Your task to perform on an android device: toggle improve location accuracy Image 0: 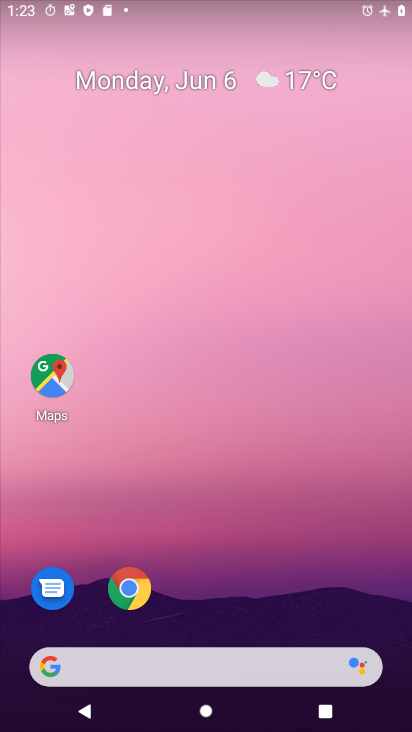
Step 0: drag from (299, 506) to (260, 14)
Your task to perform on an android device: toggle improve location accuracy Image 1: 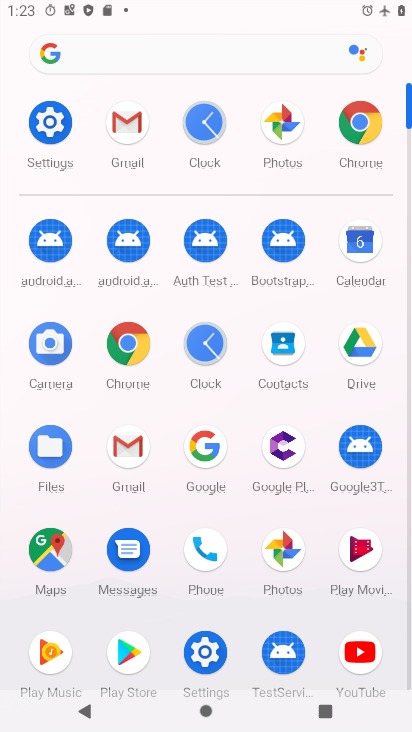
Step 1: click (55, 130)
Your task to perform on an android device: toggle improve location accuracy Image 2: 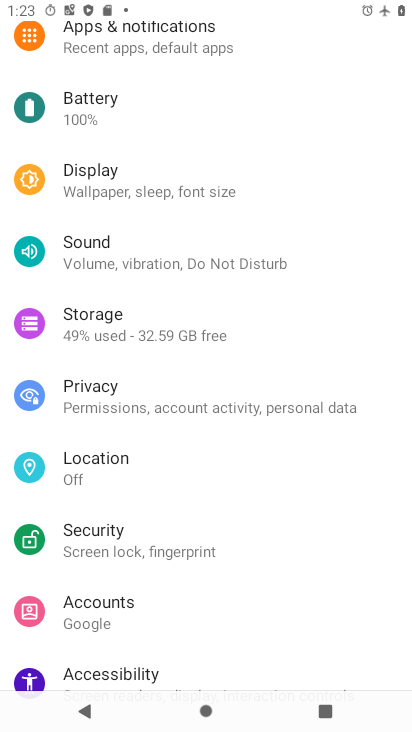
Step 2: click (140, 464)
Your task to perform on an android device: toggle improve location accuracy Image 3: 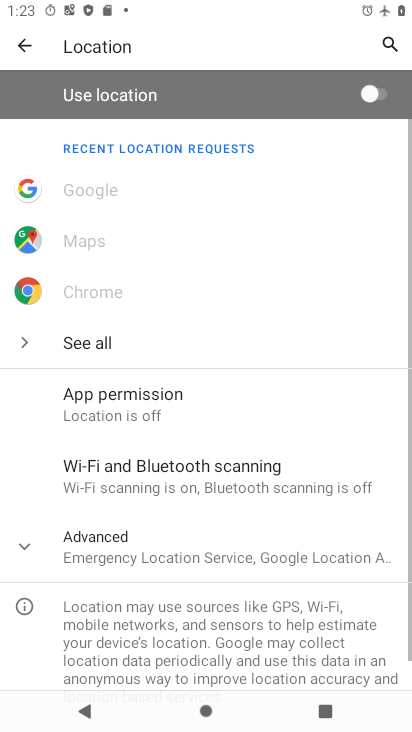
Step 3: drag from (198, 479) to (207, 90)
Your task to perform on an android device: toggle improve location accuracy Image 4: 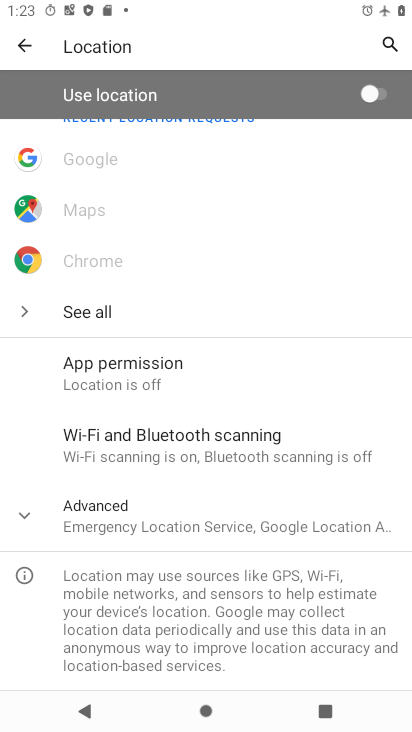
Step 4: click (164, 500)
Your task to perform on an android device: toggle improve location accuracy Image 5: 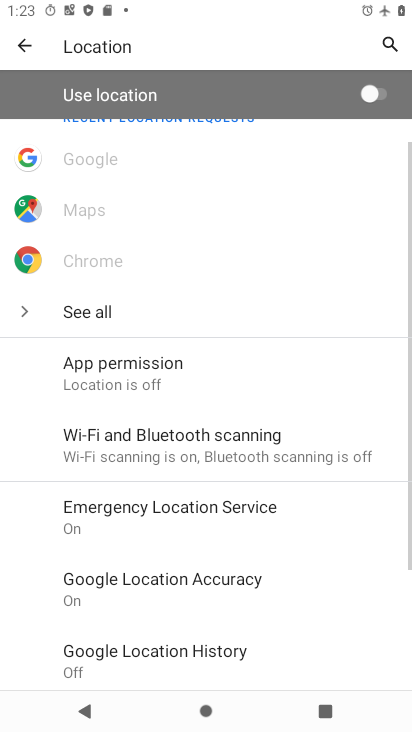
Step 5: click (226, 584)
Your task to perform on an android device: toggle improve location accuracy Image 6: 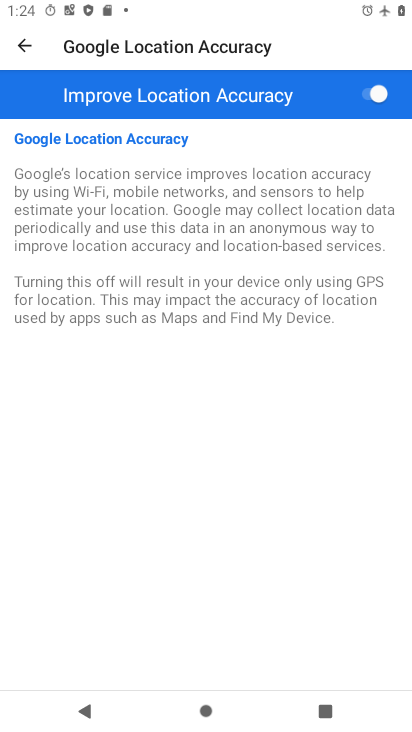
Step 6: click (368, 98)
Your task to perform on an android device: toggle improve location accuracy Image 7: 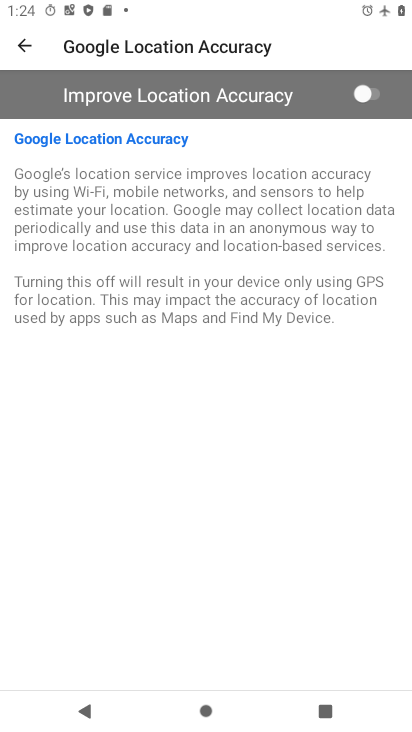
Step 7: task complete